Your task to perform on an android device: Open notification settings Image 0: 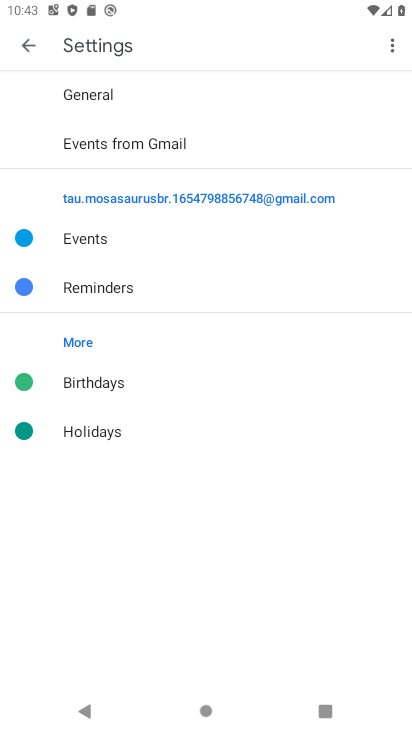
Step 0: press home button
Your task to perform on an android device: Open notification settings Image 1: 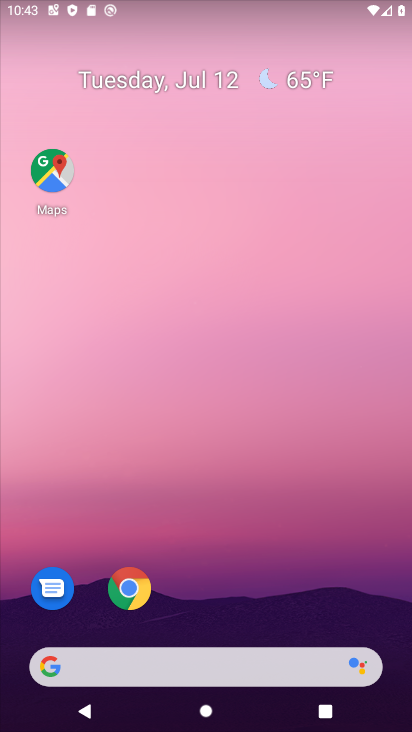
Step 1: drag from (30, 701) to (204, 89)
Your task to perform on an android device: Open notification settings Image 2: 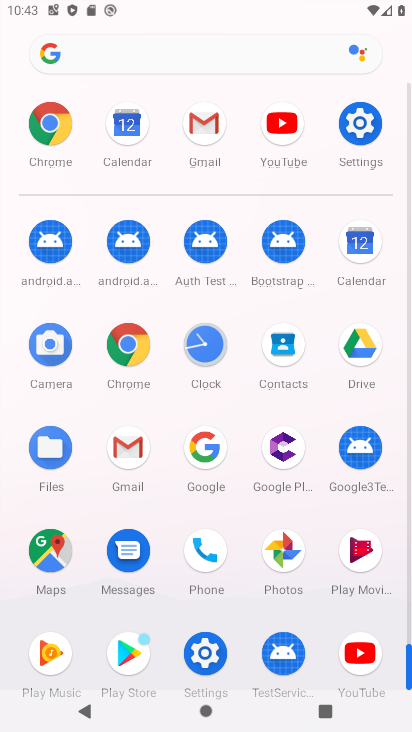
Step 2: click (199, 651)
Your task to perform on an android device: Open notification settings Image 3: 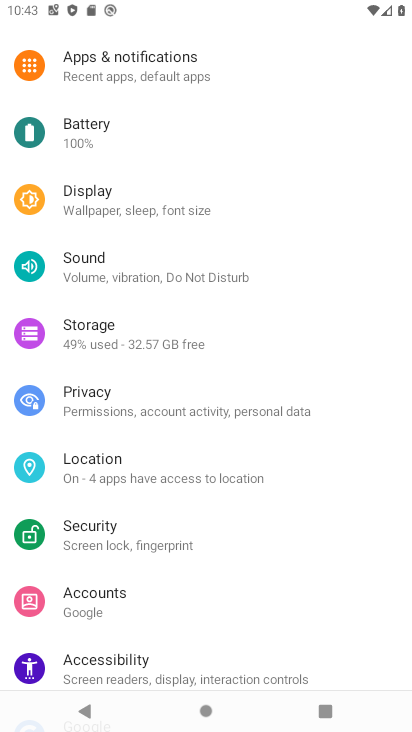
Step 3: click (114, 67)
Your task to perform on an android device: Open notification settings Image 4: 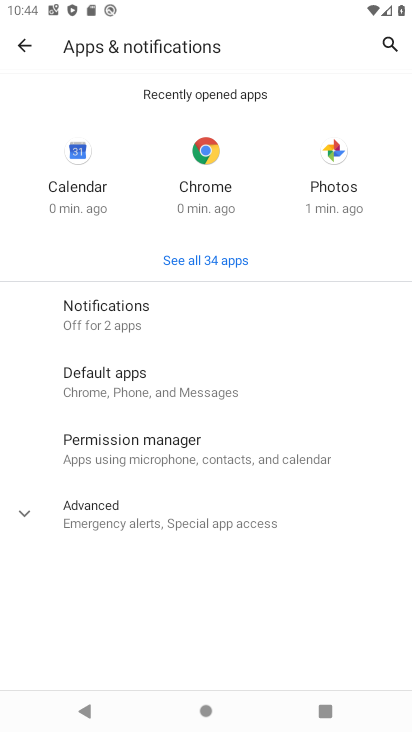
Step 4: task complete